Your task to perform on an android device: Go to Reddit Image 0: 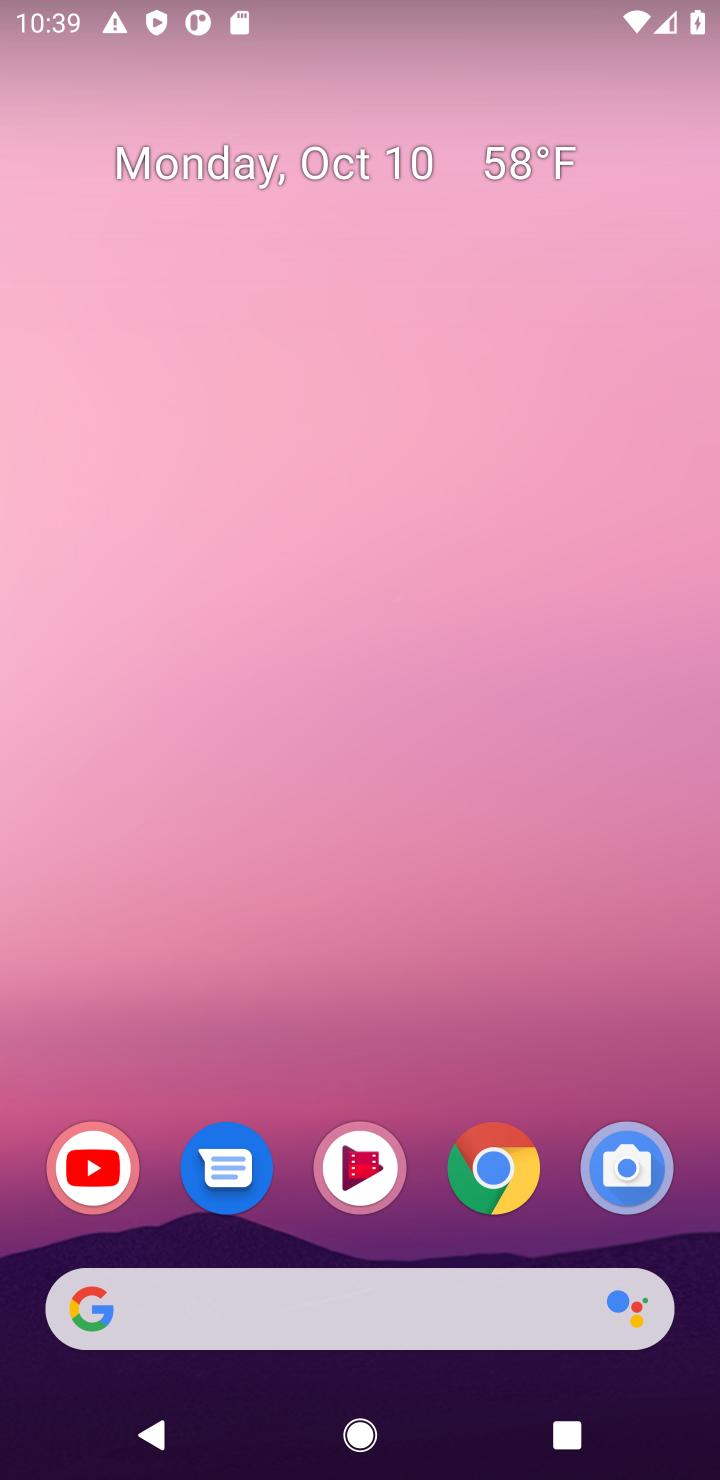
Step 0: click (468, 1307)
Your task to perform on an android device: Go to Reddit Image 1: 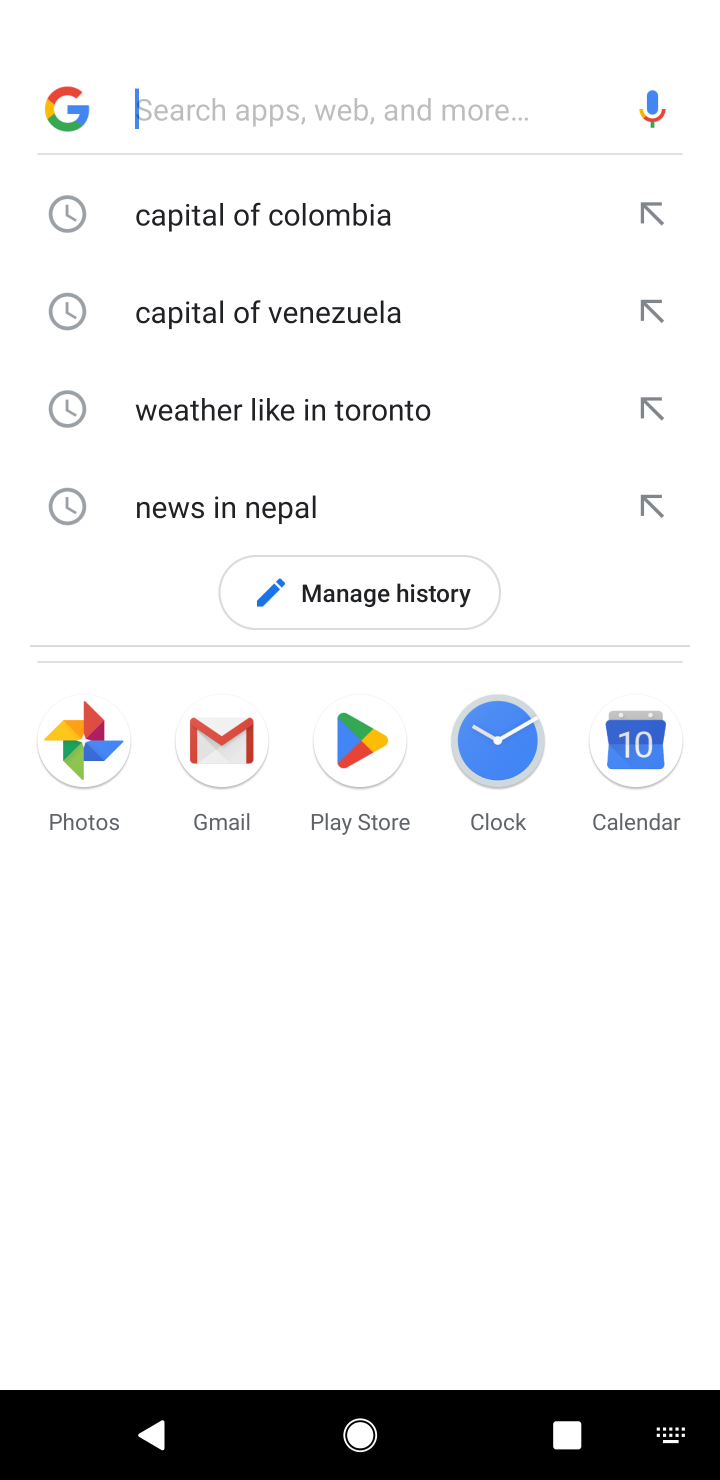
Step 1: type "Reddit"
Your task to perform on an android device: Go to Reddit Image 2: 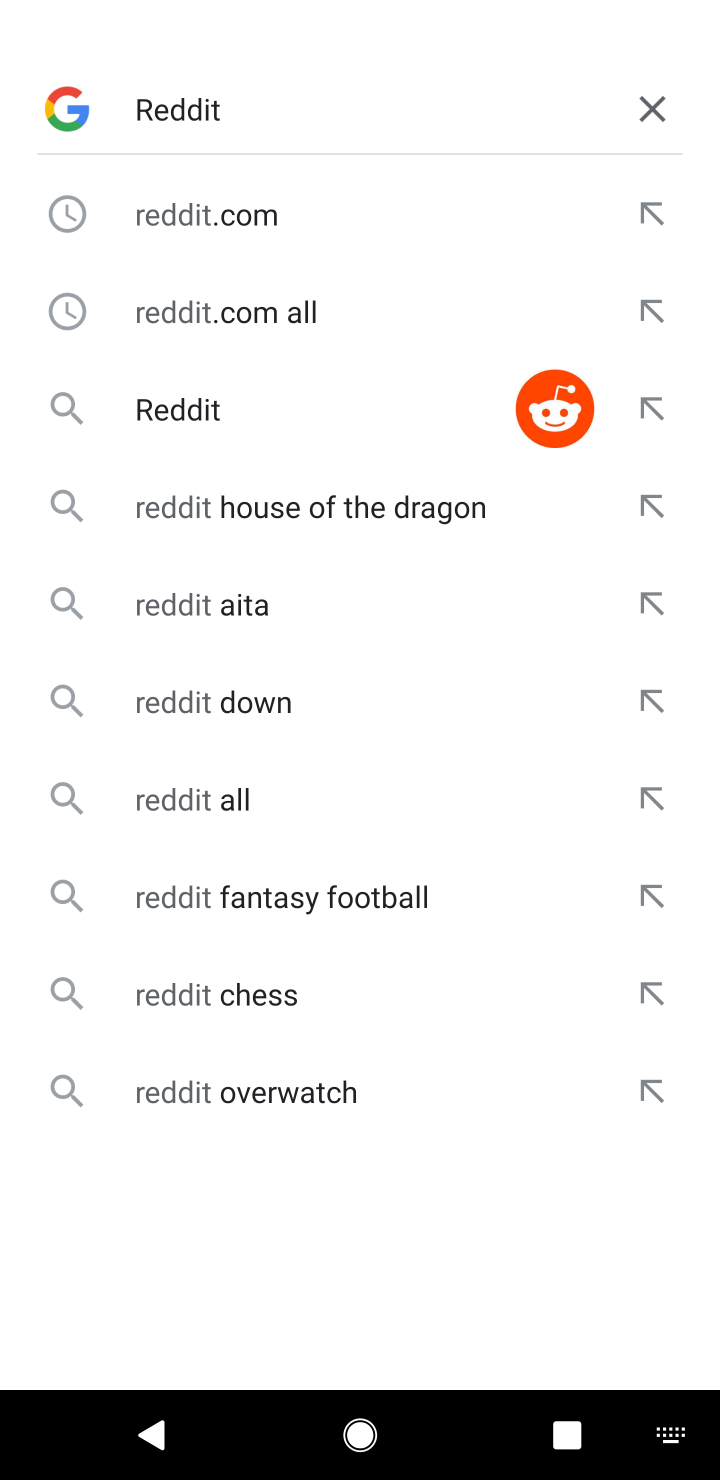
Step 2: click (232, 234)
Your task to perform on an android device: Go to Reddit Image 3: 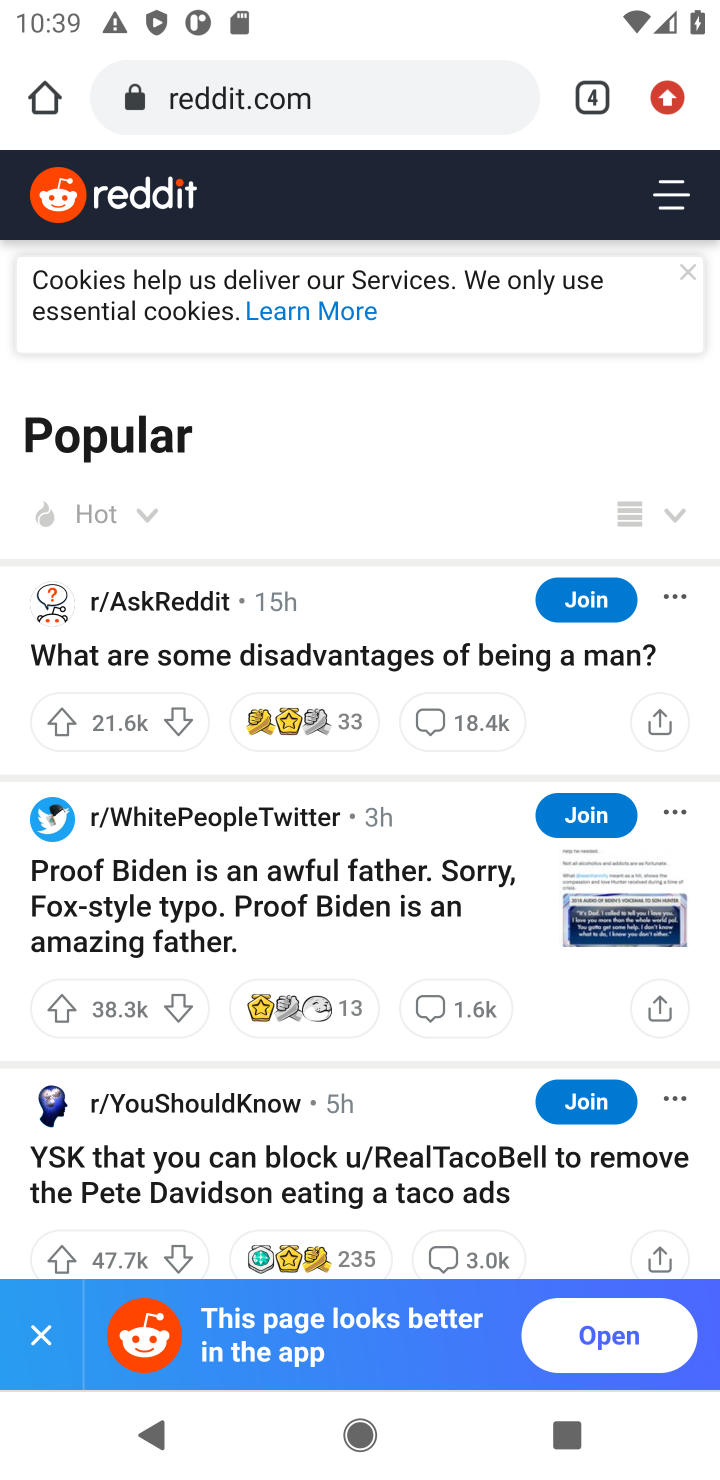
Step 3: task complete